Your task to perform on an android device: Empty the shopping cart on target. Search for razer blade on target, select the first entry, add it to the cart, then select checkout. Image 0: 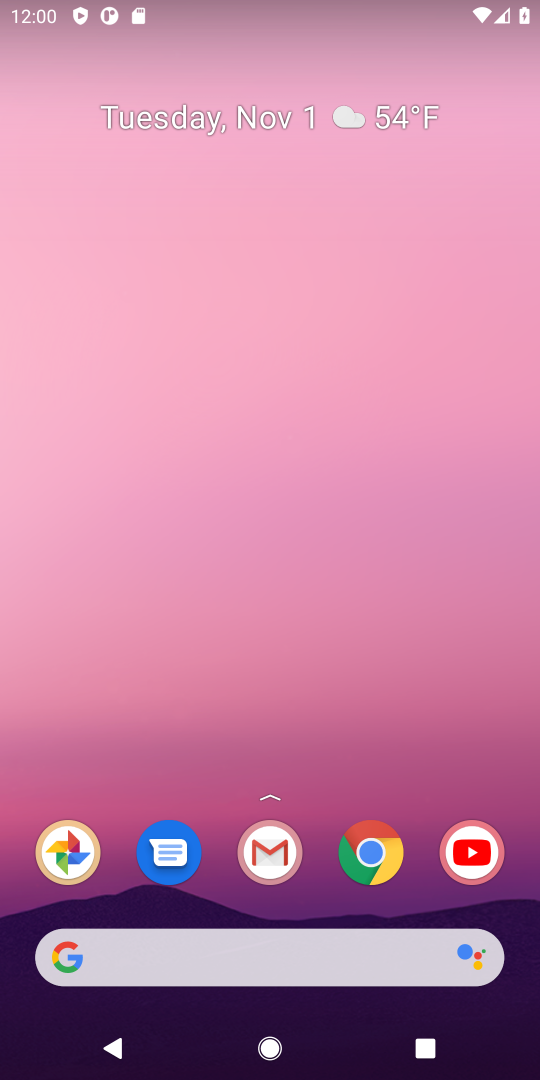
Step 0: click (367, 869)
Your task to perform on an android device: Empty the shopping cart on target. Search for razer blade on target, select the first entry, add it to the cart, then select checkout. Image 1: 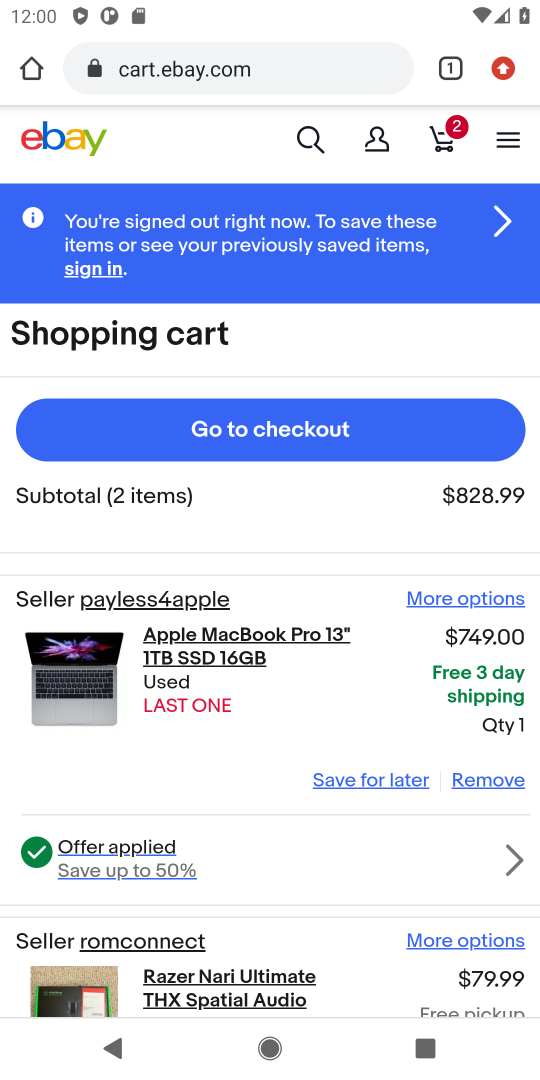
Step 1: click (283, 65)
Your task to perform on an android device: Empty the shopping cart on target. Search for razer blade on target, select the first entry, add it to the cart, then select checkout. Image 2: 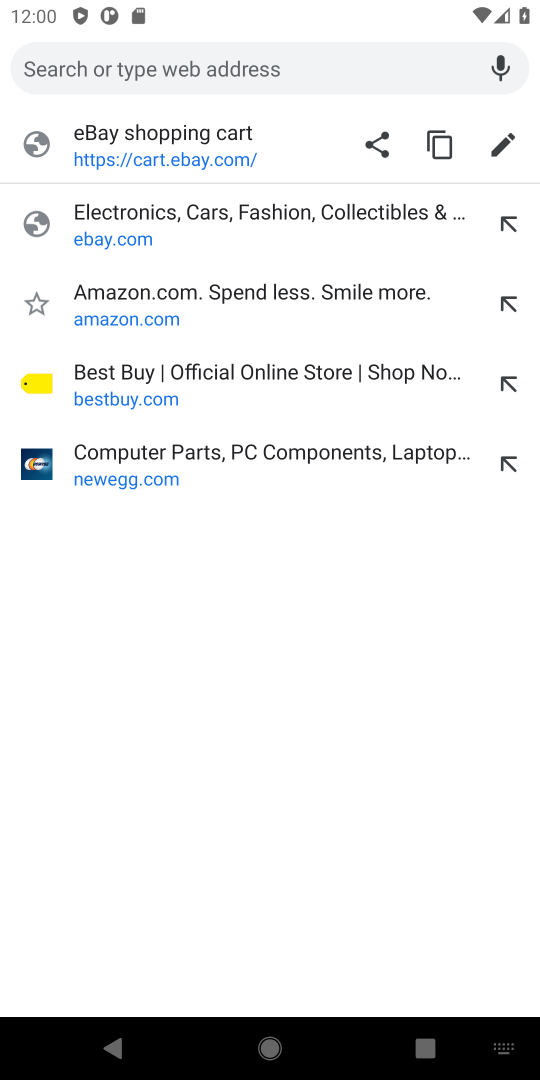
Step 2: type "target"
Your task to perform on an android device: Empty the shopping cart on target. Search for razer blade on target, select the first entry, add it to the cart, then select checkout. Image 3: 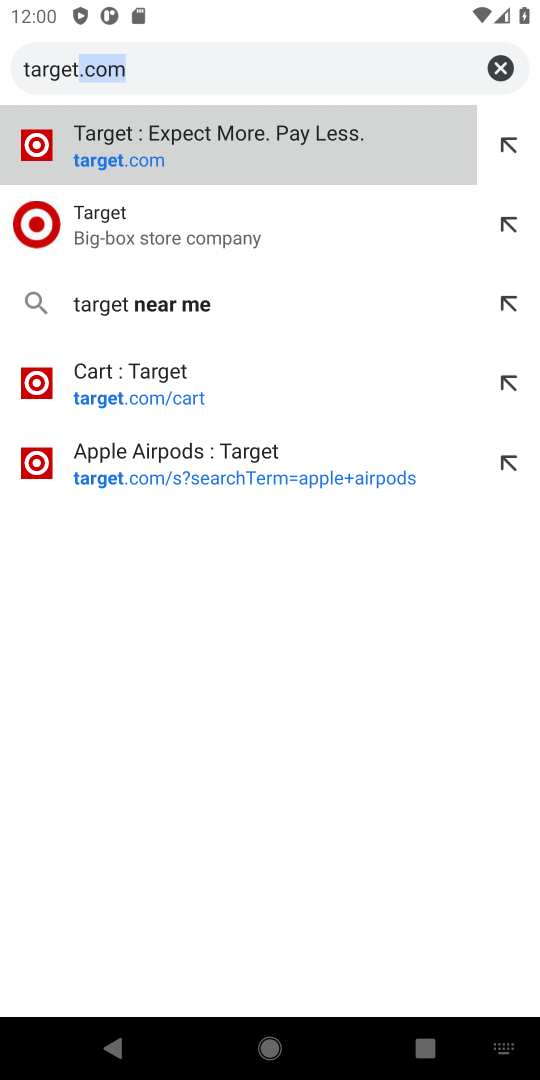
Step 3: press enter
Your task to perform on an android device: Empty the shopping cart on target. Search for razer blade on target, select the first entry, add it to the cart, then select checkout. Image 4: 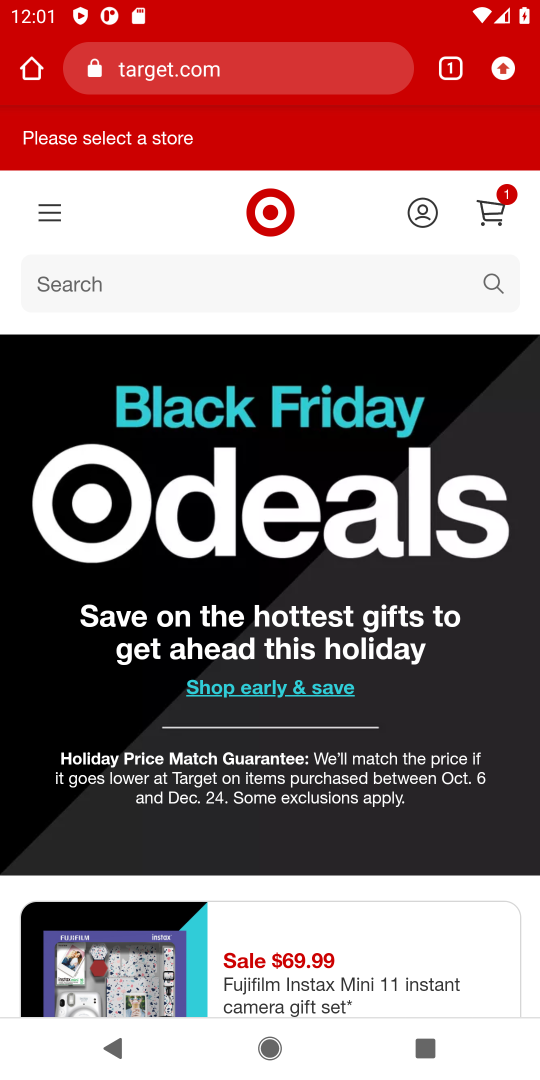
Step 4: drag from (415, 894) to (424, 822)
Your task to perform on an android device: Empty the shopping cart on target. Search for razer blade on target, select the first entry, add it to the cart, then select checkout. Image 5: 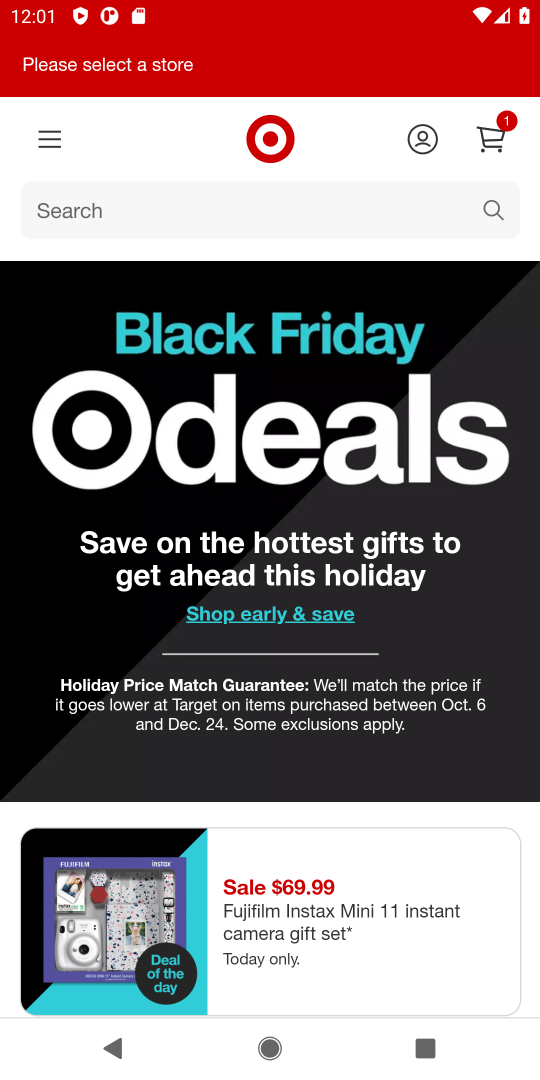
Step 5: click (488, 82)
Your task to perform on an android device: Empty the shopping cart on target. Search for razer blade on target, select the first entry, add it to the cart, then select checkout. Image 6: 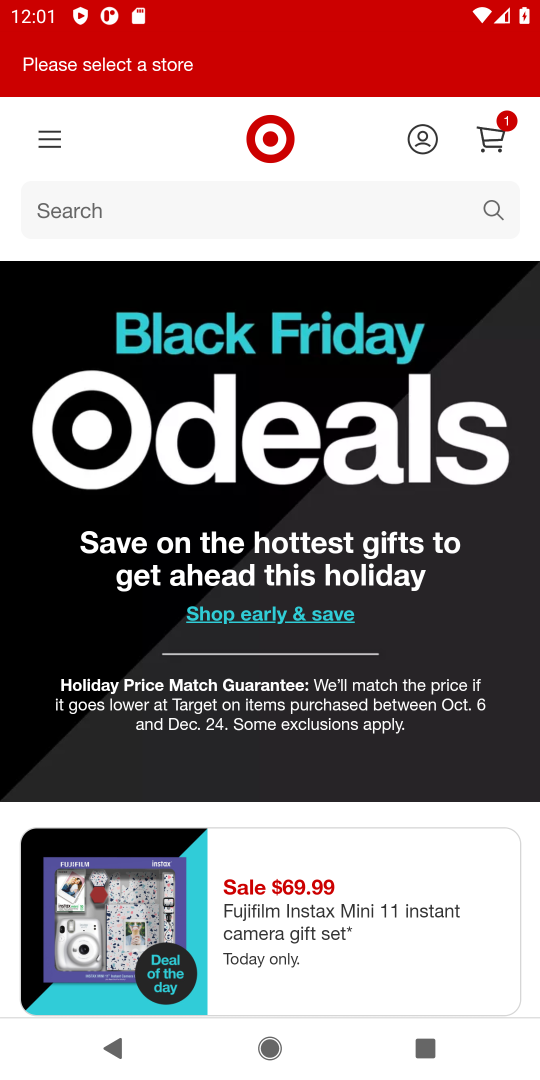
Step 6: click (485, 134)
Your task to perform on an android device: Empty the shopping cart on target. Search for razer blade on target, select the first entry, add it to the cart, then select checkout. Image 7: 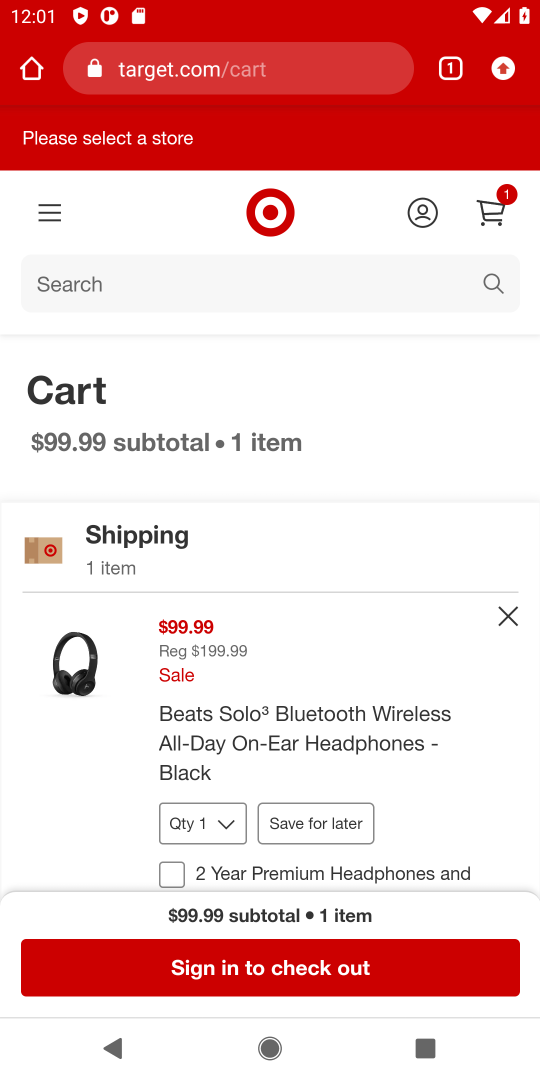
Step 7: click (501, 614)
Your task to perform on an android device: Empty the shopping cart on target. Search for razer blade on target, select the first entry, add it to the cart, then select checkout. Image 8: 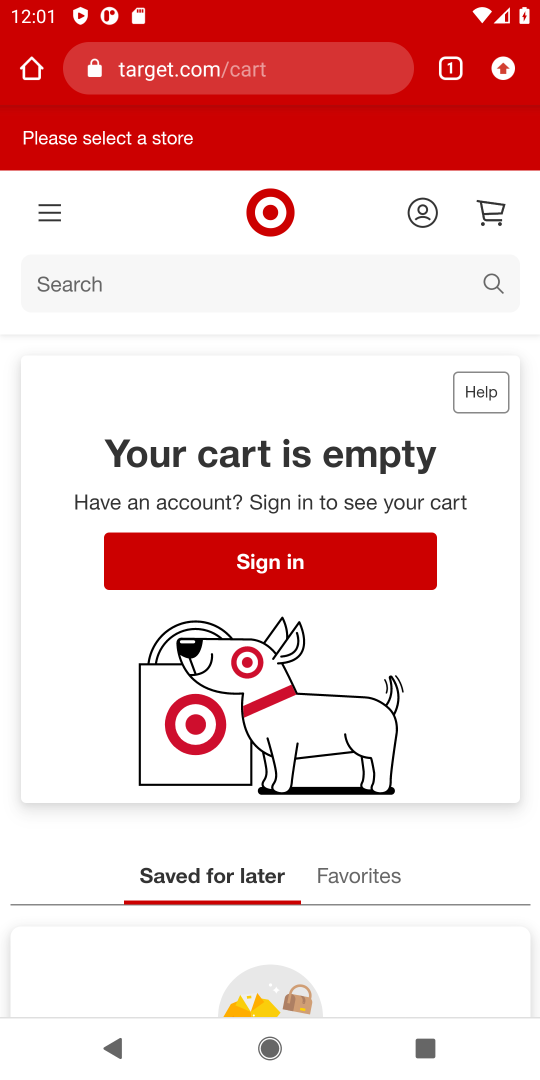
Step 8: click (212, 269)
Your task to perform on an android device: Empty the shopping cart on target. Search for razer blade on target, select the first entry, add it to the cart, then select checkout. Image 9: 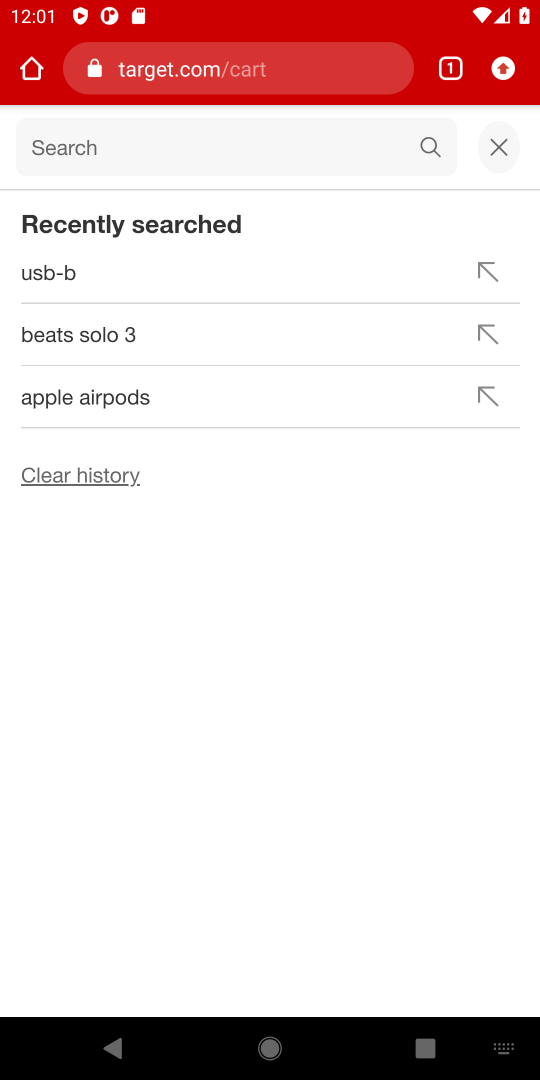
Step 9: type "razer blade"
Your task to perform on an android device: Empty the shopping cart on target. Search for razer blade on target, select the first entry, add it to the cart, then select checkout. Image 10: 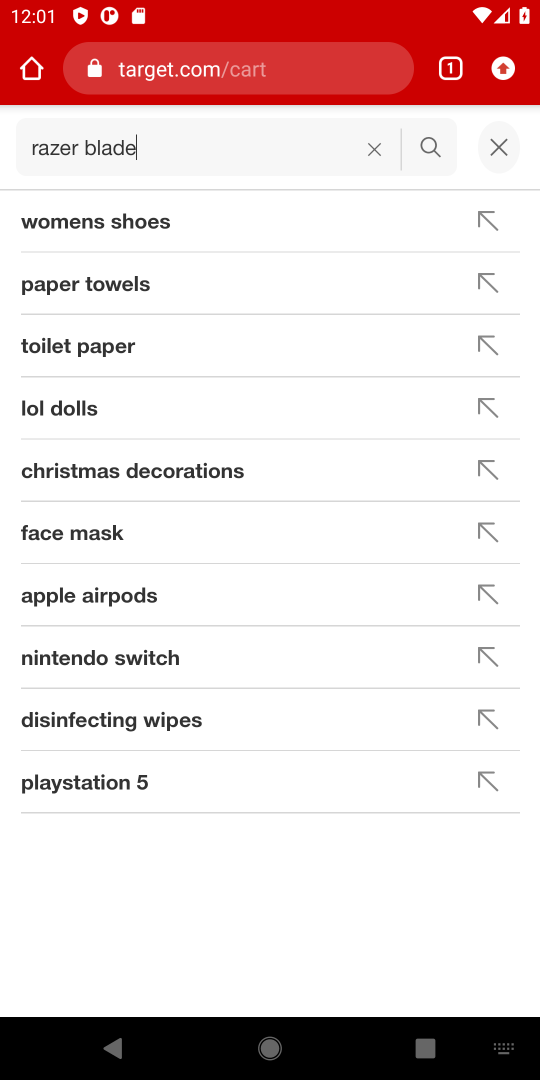
Step 10: type ""
Your task to perform on an android device: Empty the shopping cart on target. Search for razer blade on target, select the first entry, add it to the cart, then select checkout. Image 11: 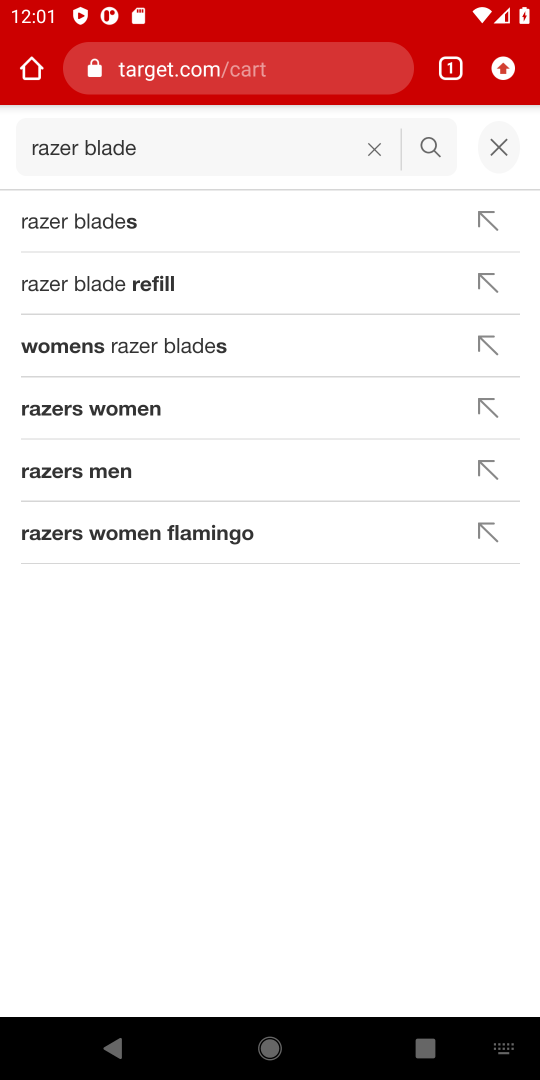
Step 11: press enter
Your task to perform on an android device: Empty the shopping cart on target. Search for razer blade on target, select the first entry, add it to the cart, then select checkout. Image 12: 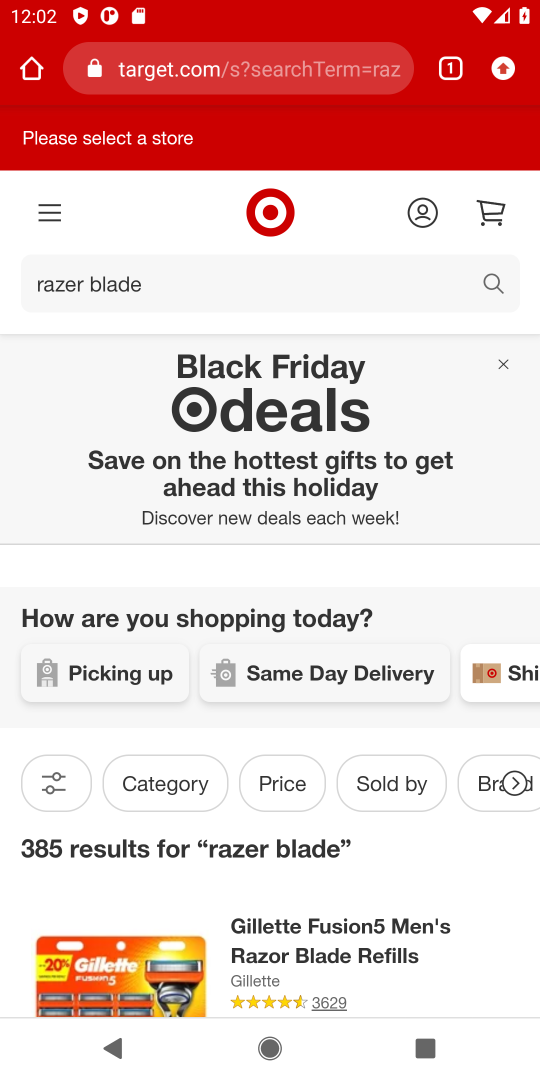
Step 12: click (487, 294)
Your task to perform on an android device: Empty the shopping cart on target. Search for razer blade on target, select the first entry, add it to the cart, then select checkout. Image 13: 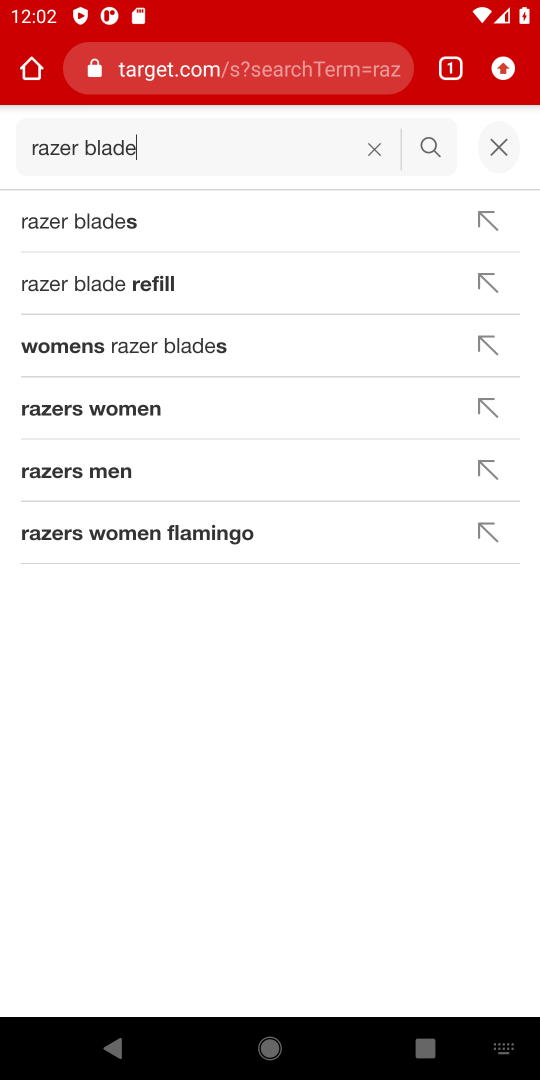
Step 13: press enter
Your task to perform on an android device: Empty the shopping cart on target. Search for razer blade on target, select the first entry, add it to the cart, then select checkout. Image 14: 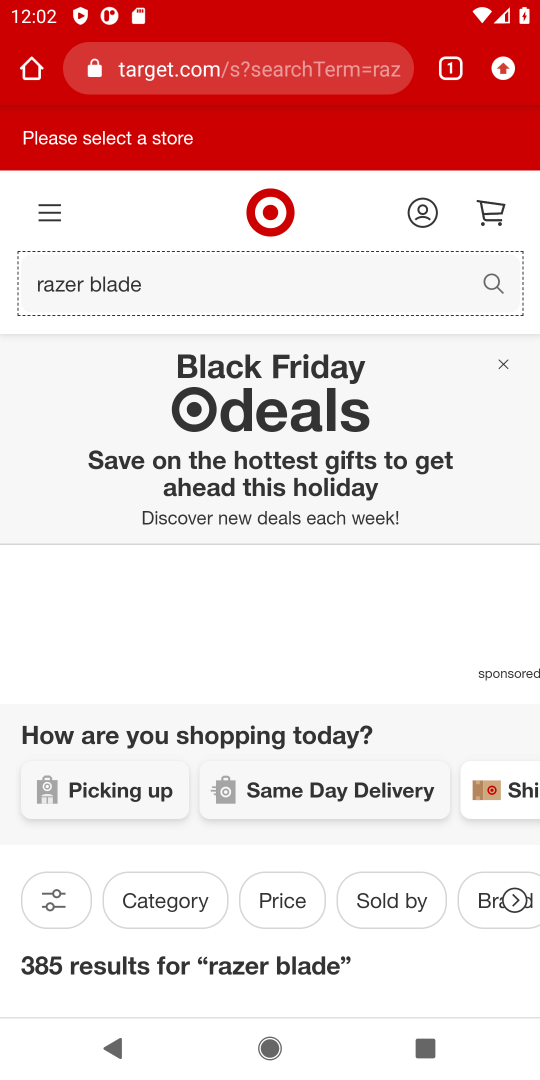
Step 14: drag from (423, 928) to (416, 195)
Your task to perform on an android device: Empty the shopping cart on target. Search for razer blade on target, select the first entry, add it to the cart, then select checkout. Image 15: 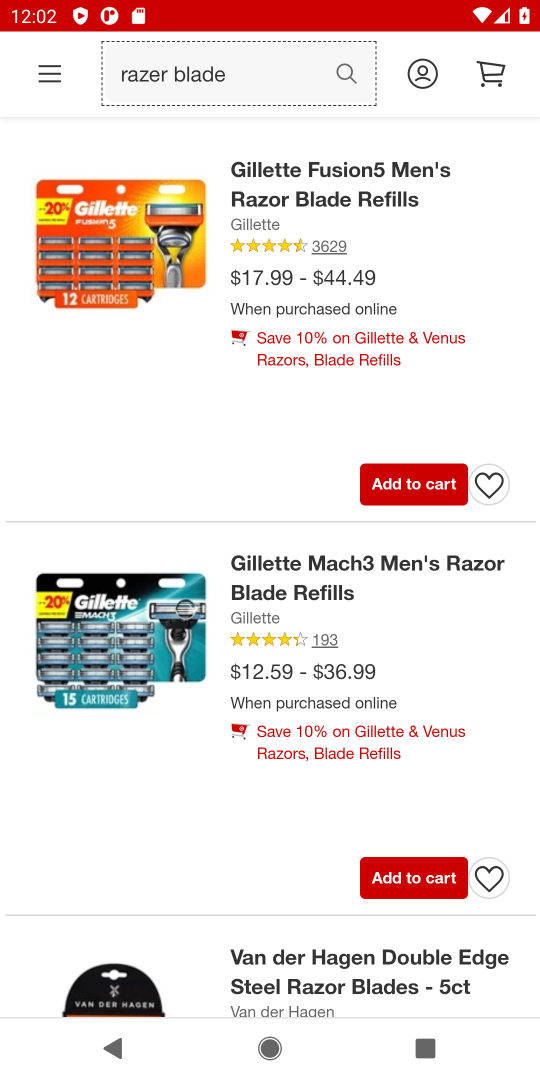
Step 15: click (314, 203)
Your task to perform on an android device: Empty the shopping cart on target. Search for razer blade on target, select the first entry, add it to the cart, then select checkout. Image 16: 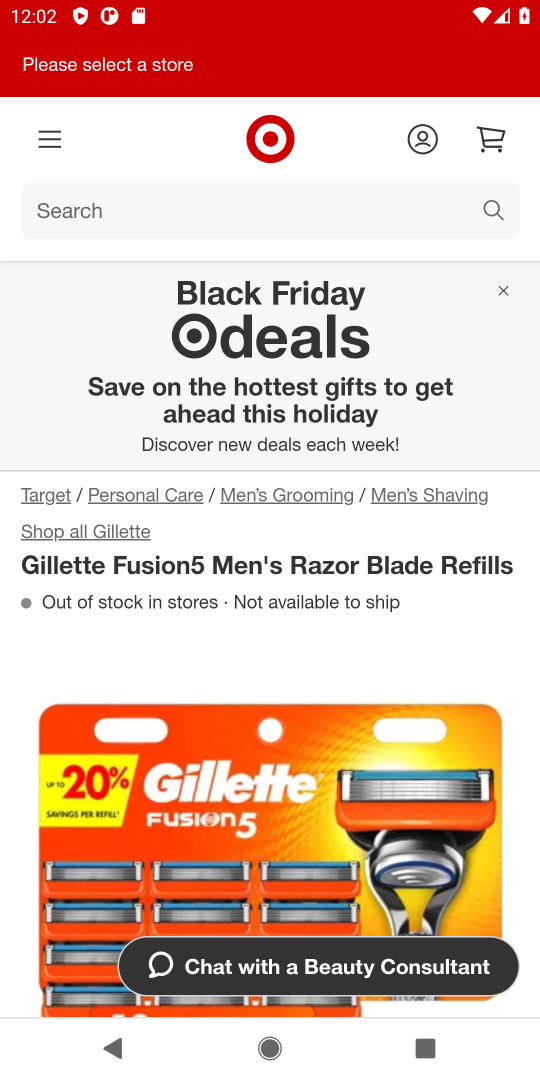
Step 16: drag from (315, 566) to (293, 160)
Your task to perform on an android device: Empty the shopping cart on target. Search for razer blade on target, select the first entry, add it to the cart, then select checkout. Image 17: 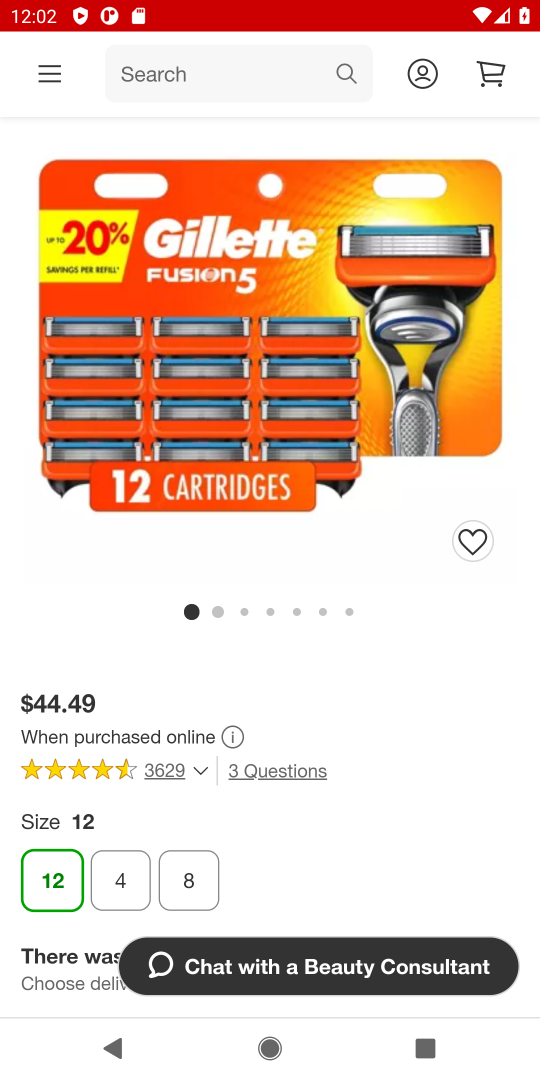
Step 17: drag from (420, 798) to (416, 381)
Your task to perform on an android device: Empty the shopping cart on target. Search for razer blade on target, select the first entry, add it to the cart, then select checkout. Image 18: 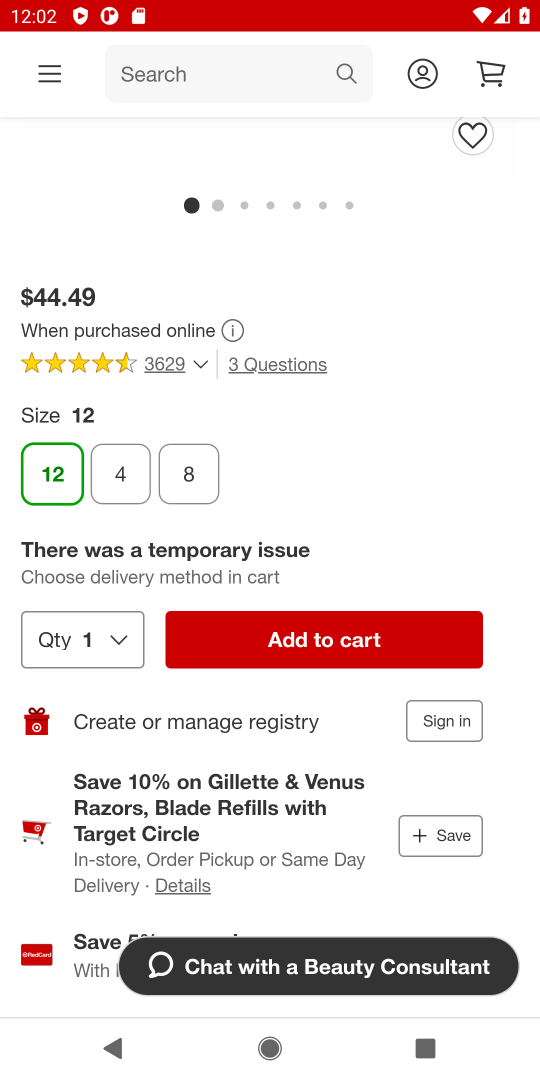
Step 18: click (402, 645)
Your task to perform on an android device: Empty the shopping cart on target. Search for razer blade on target, select the first entry, add it to the cart, then select checkout. Image 19: 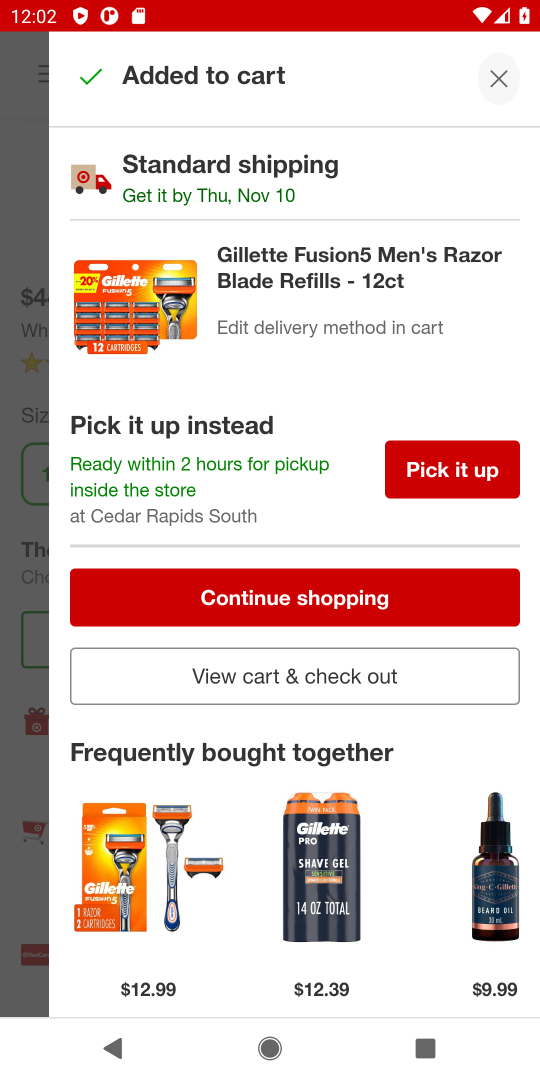
Step 19: click (335, 677)
Your task to perform on an android device: Empty the shopping cart on target. Search for razer blade on target, select the first entry, add it to the cart, then select checkout. Image 20: 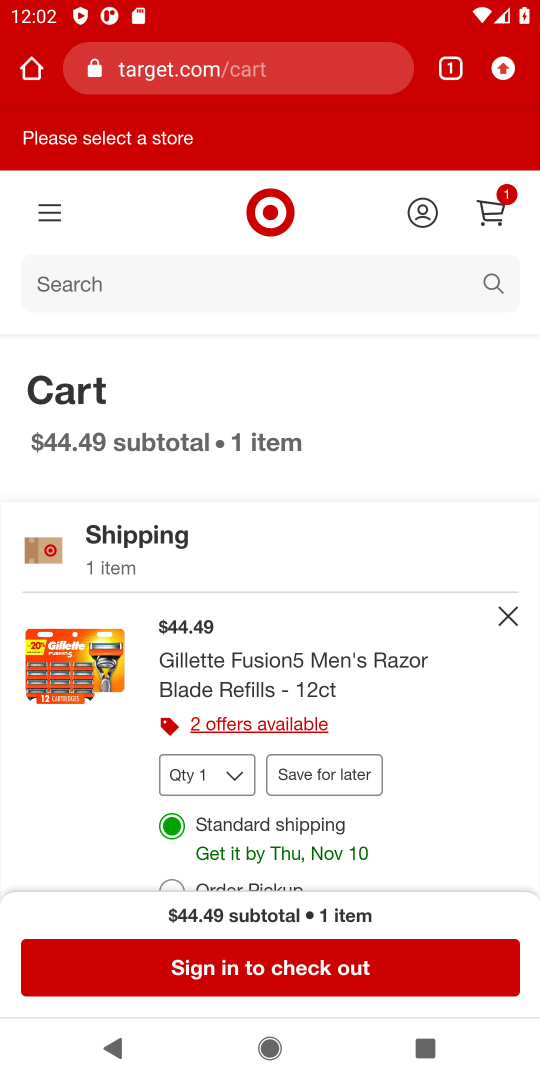
Step 20: click (370, 971)
Your task to perform on an android device: Empty the shopping cart on target. Search for razer blade on target, select the first entry, add it to the cart, then select checkout. Image 21: 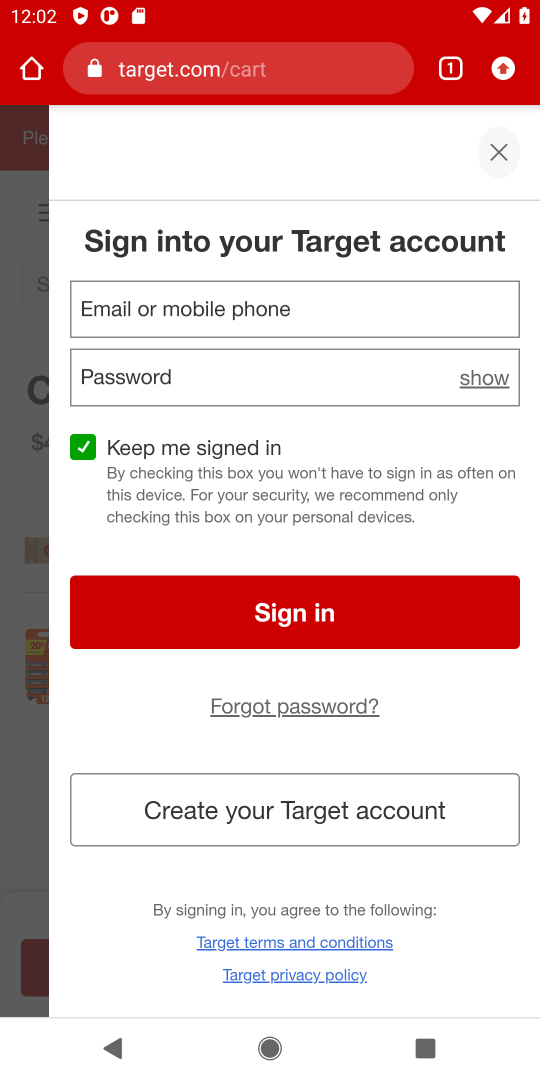
Step 21: task complete